Your task to perform on an android device: Open CNN.com Image 0: 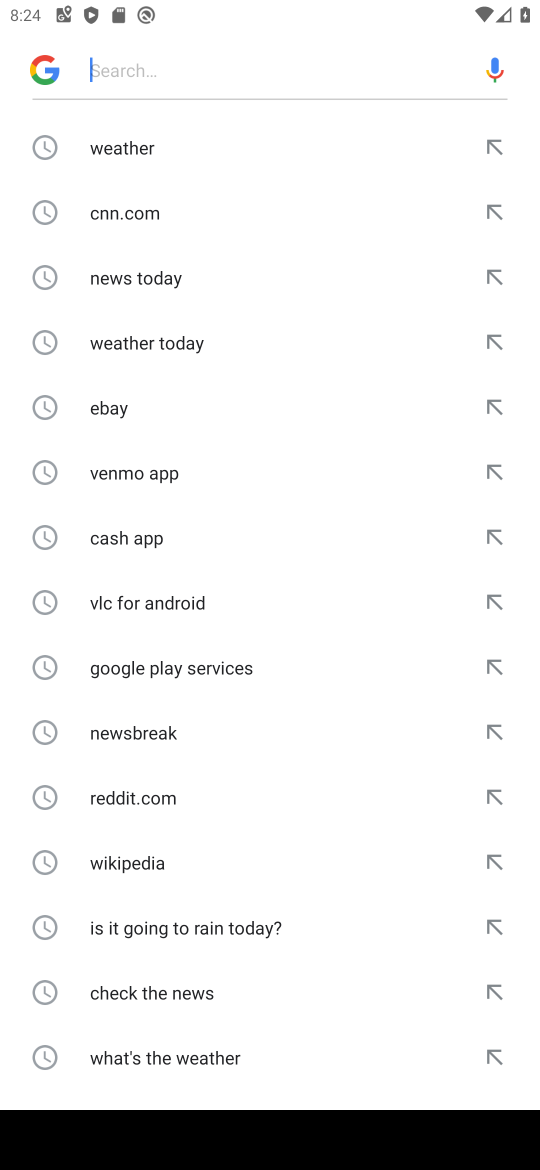
Step 0: type "CNN.com"
Your task to perform on an android device: Open CNN.com Image 1: 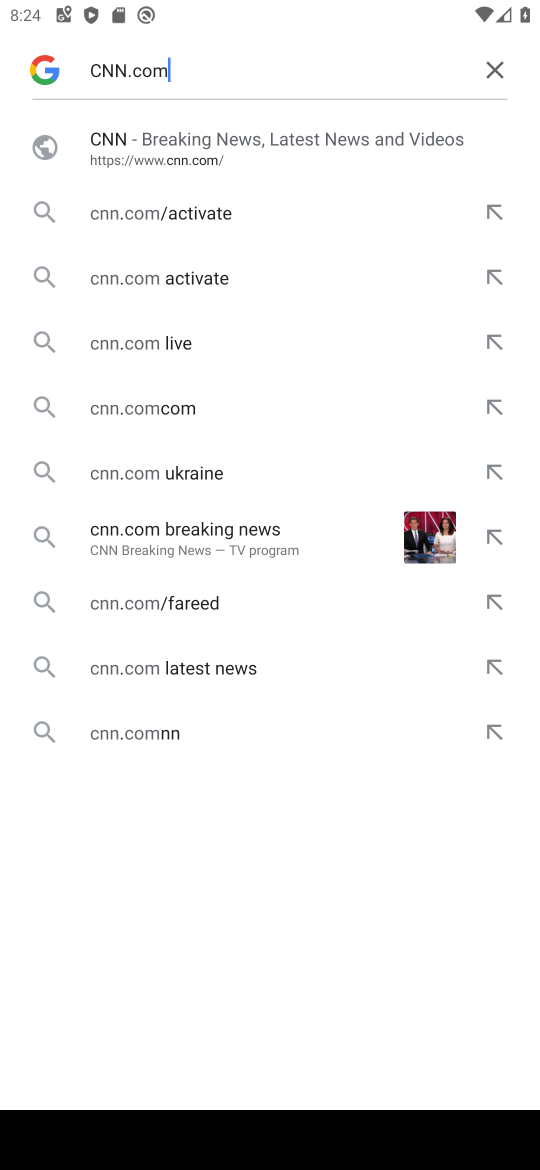
Step 1: click (190, 175)
Your task to perform on an android device: Open CNN.com Image 2: 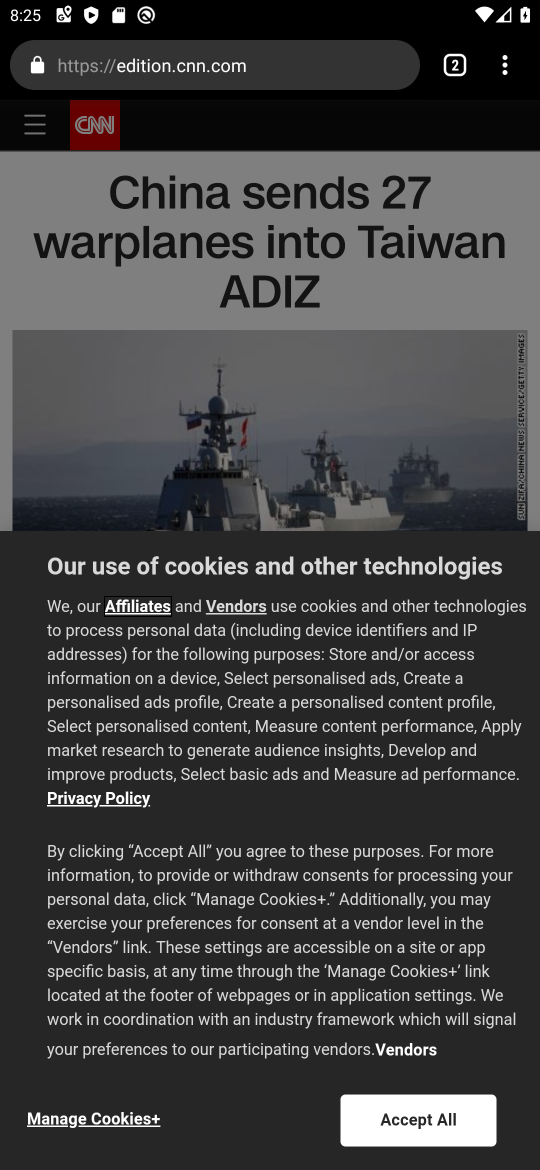
Step 2: task complete